Your task to perform on an android device: Go to Reddit.com Image 0: 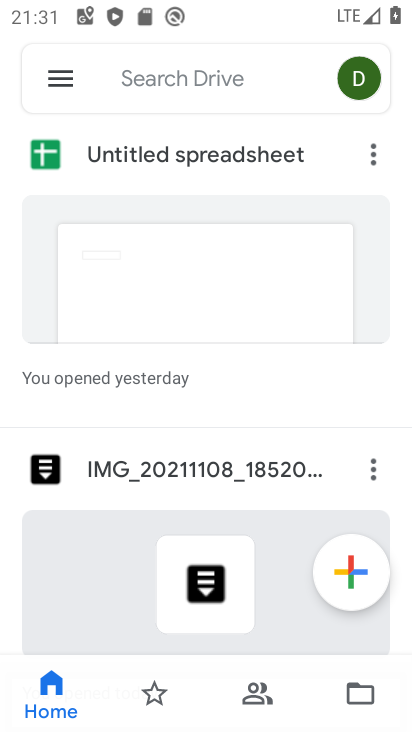
Step 0: press home button
Your task to perform on an android device: Go to Reddit.com Image 1: 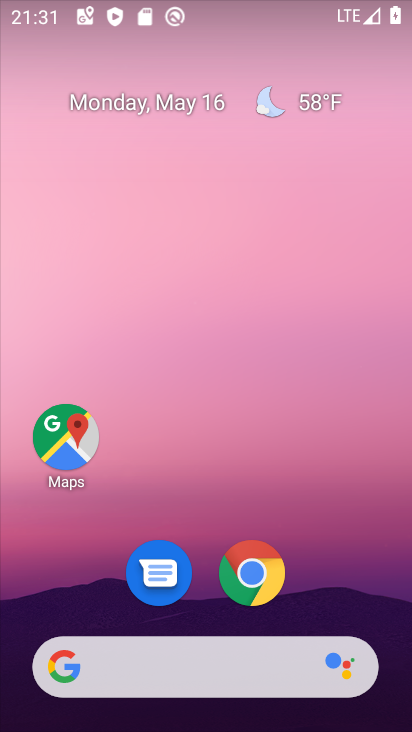
Step 1: click (264, 582)
Your task to perform on an android device: Go to Reddit.com Image 2: 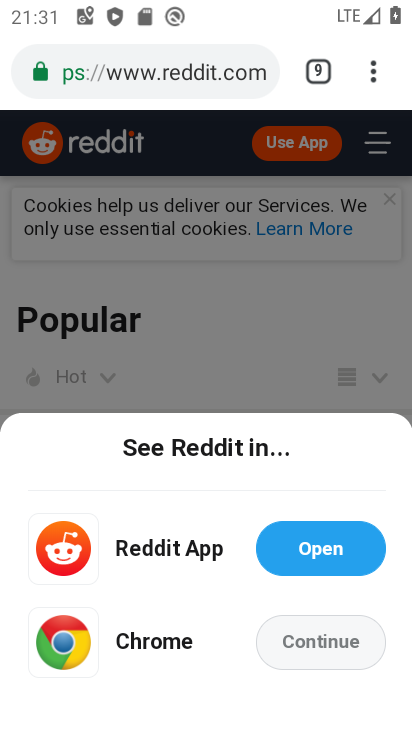
Step 2: task complete